Your task to perform on an android device: change timer sound Image 0: 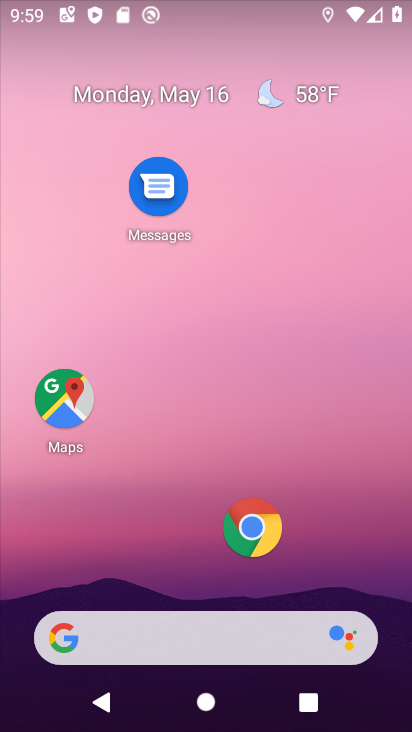
Step 0: drag from (162, 547) to (181, 96)
Your task to perform on an android device: change timer sound Image 1: 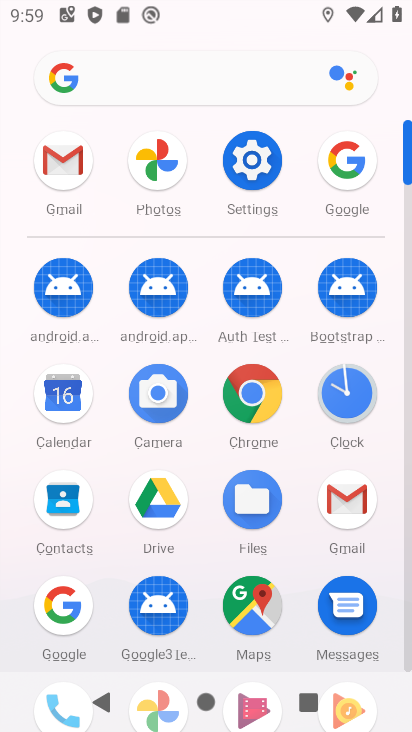
Step 1: click (352, 395)
Your task to perform on an android device: change timer sound Image 2: 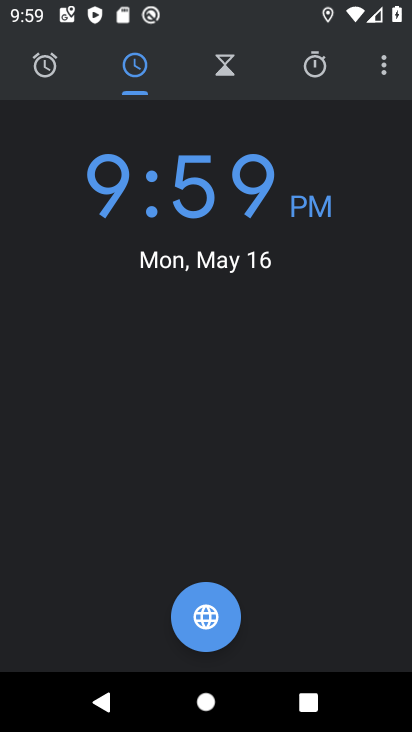
Step 2: click (376, 68)
Your task to perform on an android device: change timer sound Image 3: 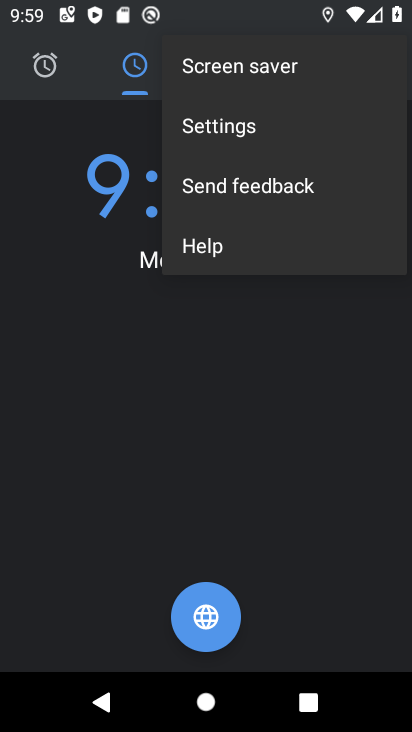
Step 3: click (239, 131)
Your task to perform on an android device: change timer sound Image 4: 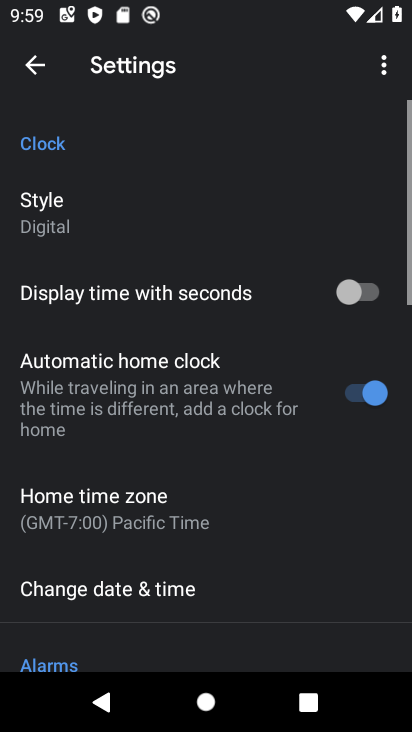
Step 4: drag from (166, 574) to (154, 111)
Your task to perform on an android device: change timer sound Image 5: 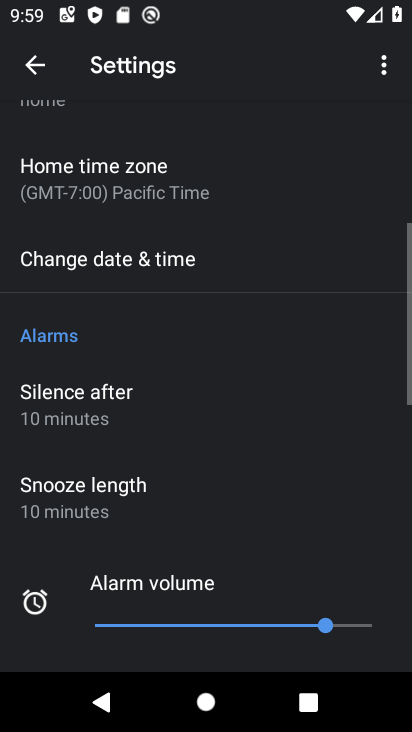
Step 5: drag from (161, 549) to (170, 128)
Your task to perform on an android device: change timer sound Image 6: 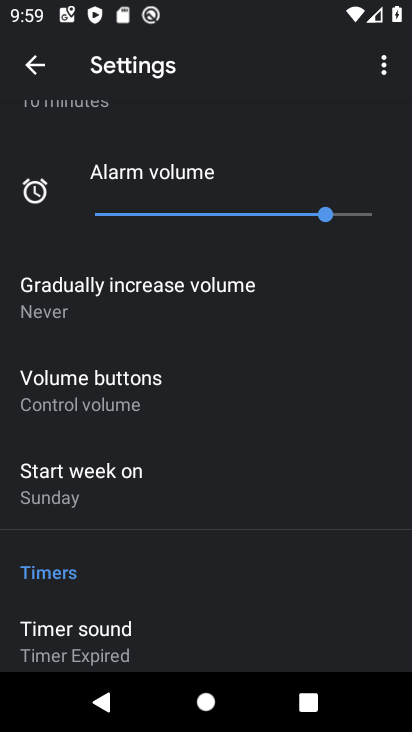
Step 6: click (62, 654)
Your task to perform on an android device: change timer sound Image 7: 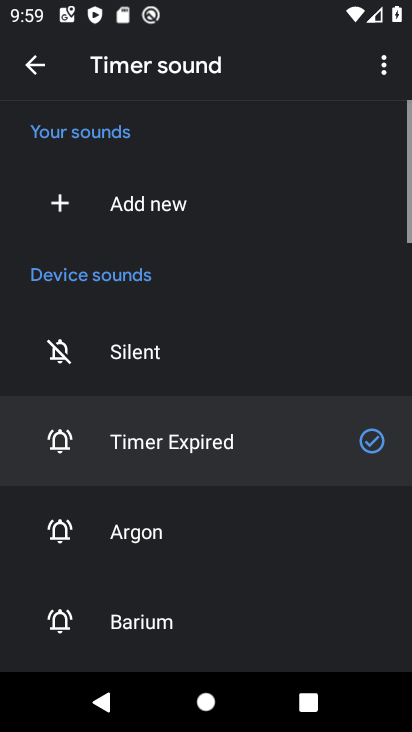
Step 7: click (161, 528)
Your task to perform on an android device: change timer sound Image 8: 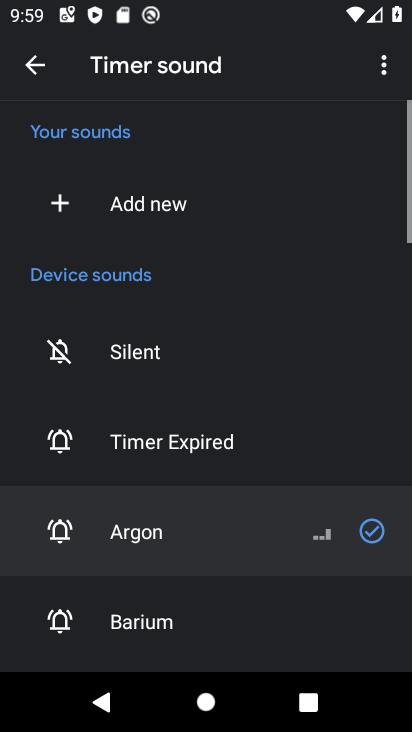
Step 8: task complete